Your task to perform on an android device: turn on sleep mode Image 0: 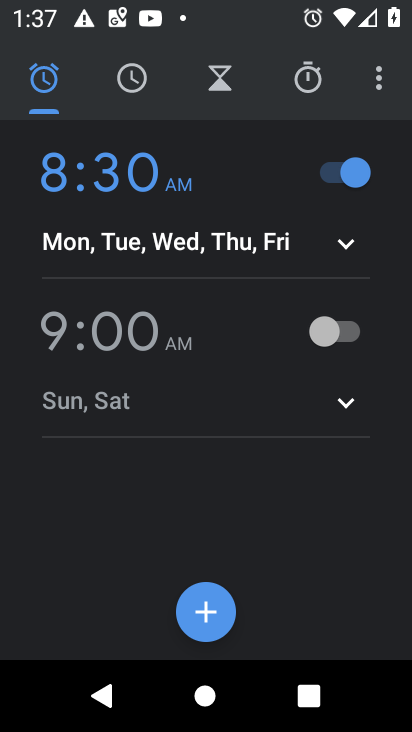
Step 0: press back button
Your task to perform on an android device: turn on sleep mode Image 1: 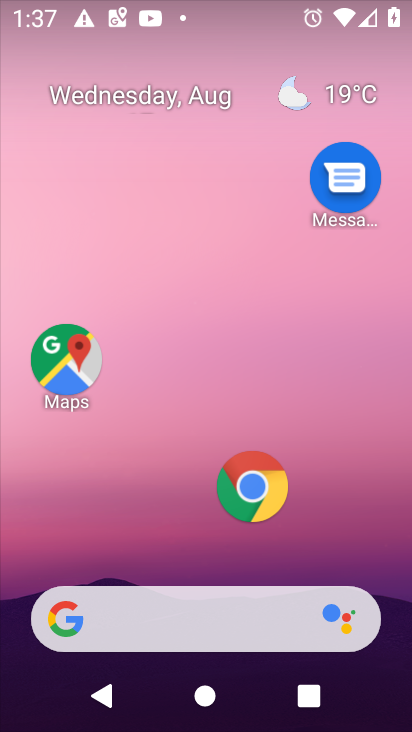
Step 1: drag from (187, 418) to (206, 32)
Your task to perform on an android device: turn on sleep mode Image 2: 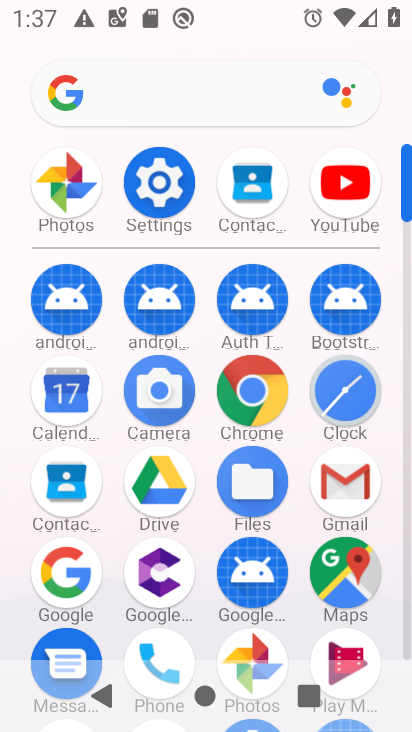
Step 2: click (151, 174)
Your task to perform on an android device: turn on sleep mode Image 3: 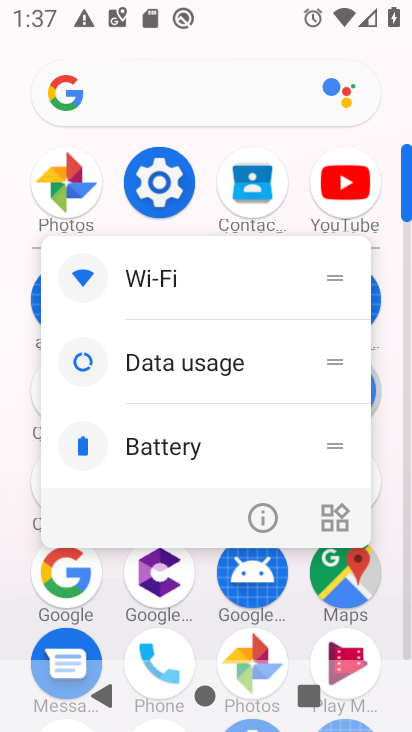
Step 3: click (161, 187)
Your task to perform on an android device: turn on sleep mode Image 4: 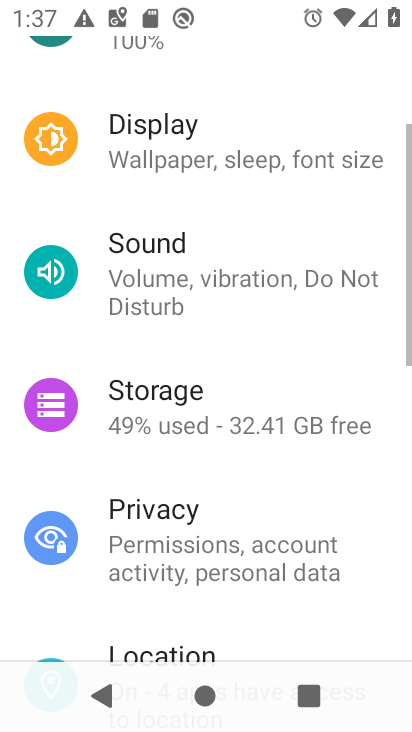
Step 4: drag from (323, 160) to (254, 712)
Your task to perform on an android device: turn on sleep mode Image 5: 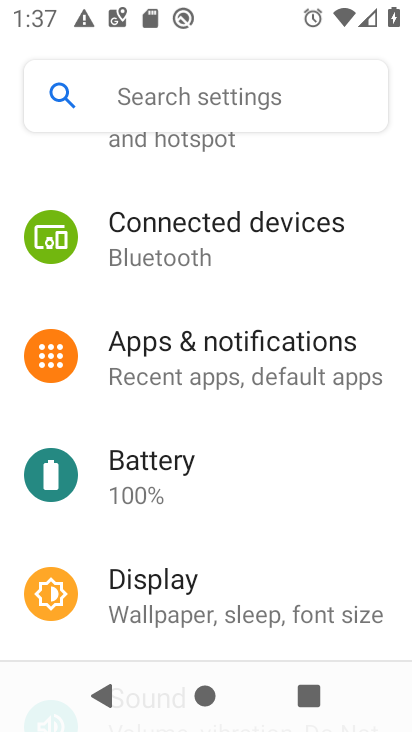
Step 5: click (229, 94)
Your task to perform on an android device: turn on sleep mode Image 6: 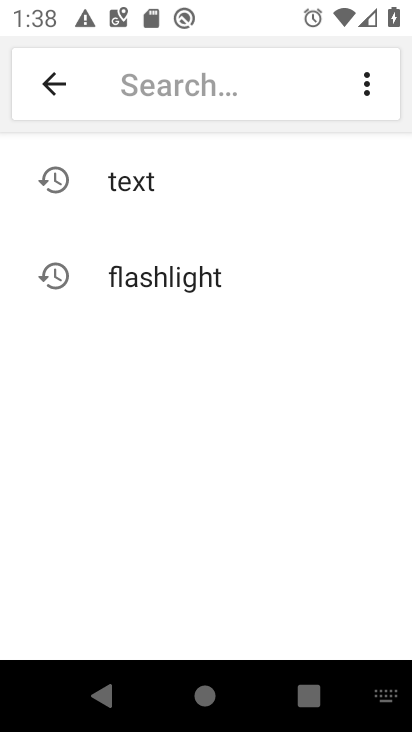
Step 6: type "sleep mode"
Your task to perform on an android device: turn on sleep mode Image 7: 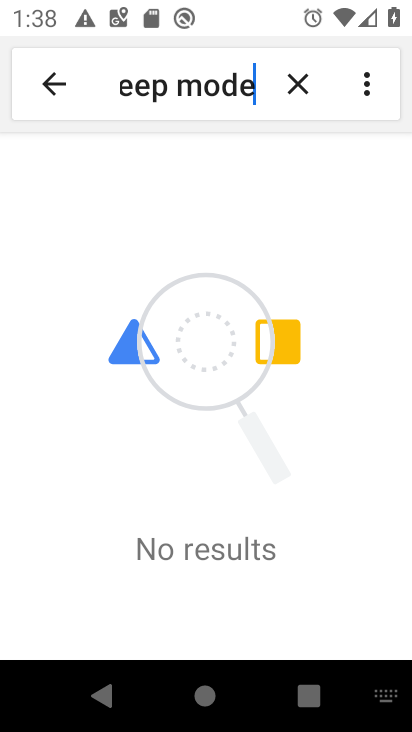
Step 7: task complete